Your task to perform on an android device: Search for seafood restaurants on Google Maps Image 0: 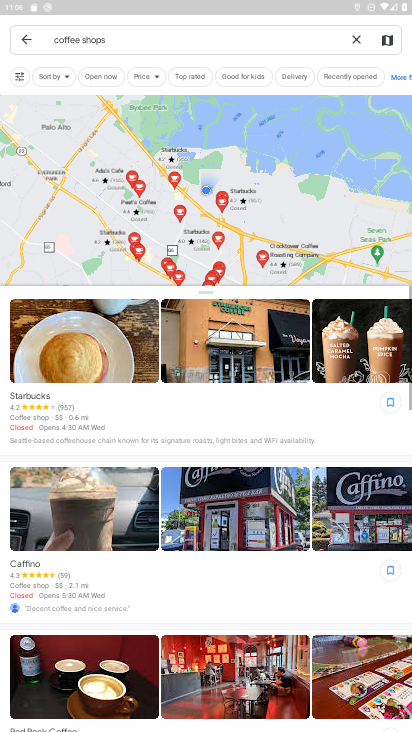
Step 0: press home button
Your task to perform on an android device: Search for seafood restaurants on Google Maps Image 1: 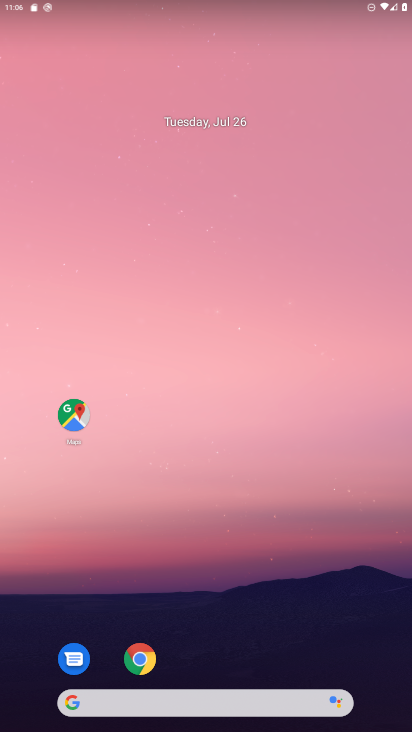
Step 1: click (71, 414)
Your task to perform on an android device: Search for seafood restaurants on Google Maps Image 2: 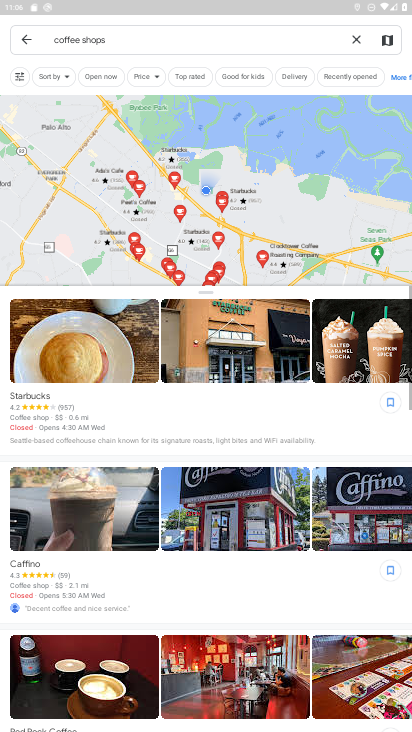
Step 2: click (134, 43)
Your task to perform on an android device: Search for seafood restaurants on Google Maps Image 3: 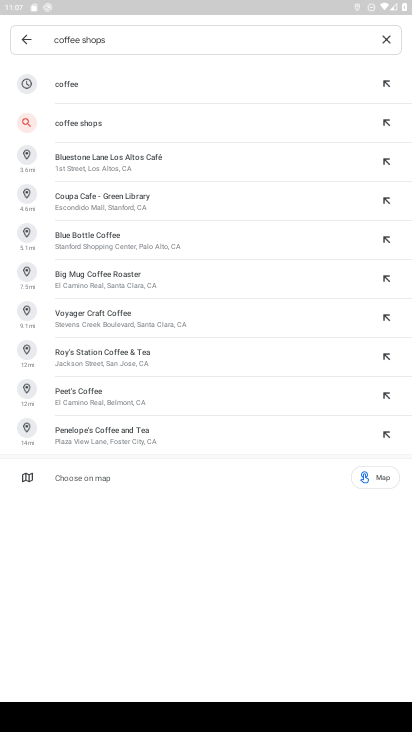
Step 3: click (387, 38)
Your task to perform on an android device: Search for seafood restaurants on Google Maps Image 4: 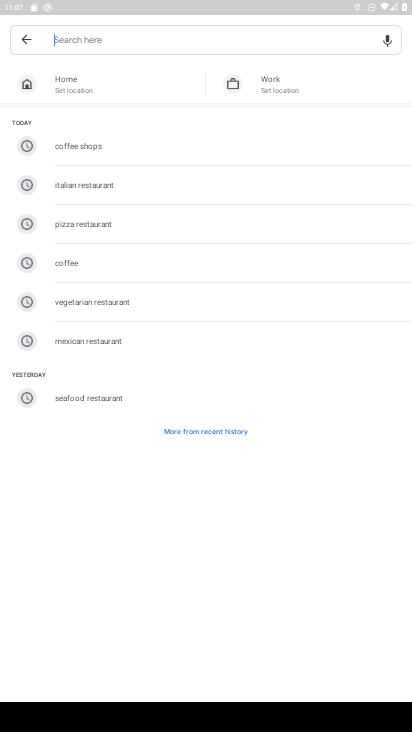
Step 4: click (88, 38)
Your task to perform on an android device: Search for seafood restaurants on Google Maps Image 5: 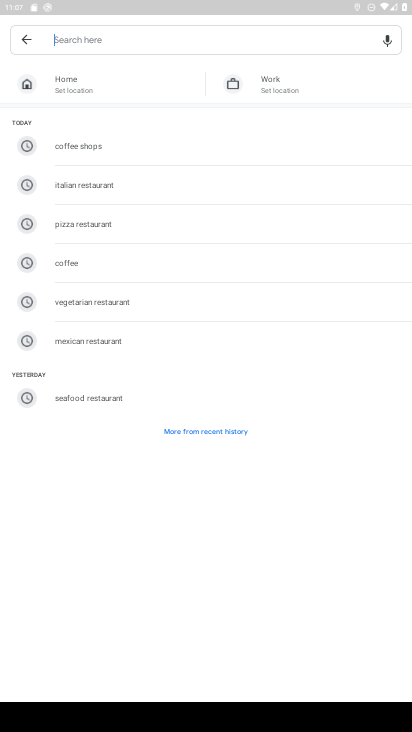
Step 5: type "seafood restaurants"
Your task to perform on an android device: Search for seafood restaurants on Google Maps Image 6: 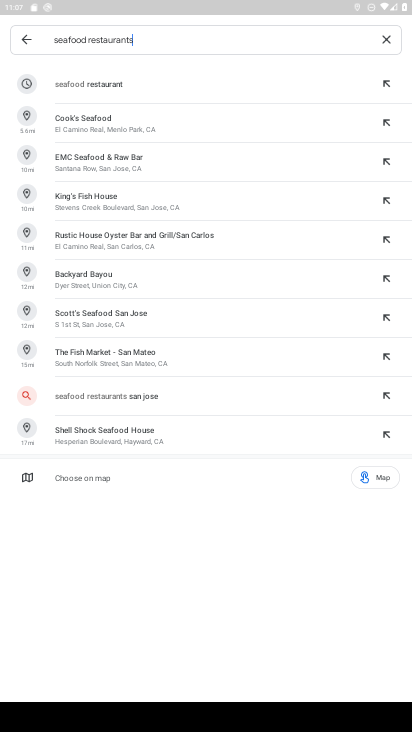
Step 6: click (103, 80)
Your task to perform on an android device: Search for seafood restaurants on Google Maps Image 7: 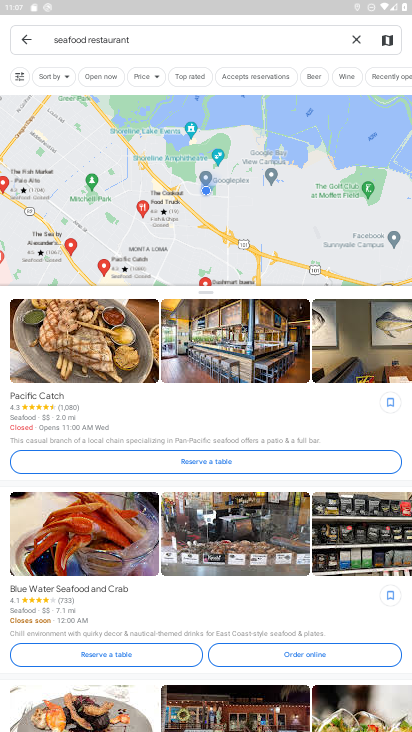
Step 7: task complete